Your task to perform on an android device: Open maps Image 0: 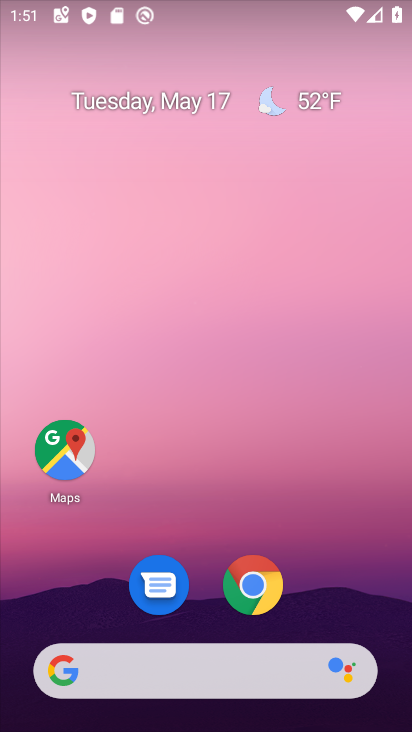
Step 0: click (63, 449)
Your task to perform on an android device: Open maps Image 1: 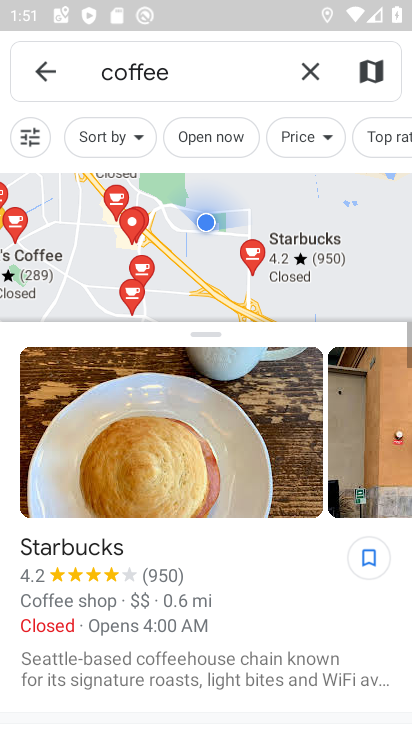
Step 1: click (305, 66)
Your task to perform on an android device: Open maps Image 2: 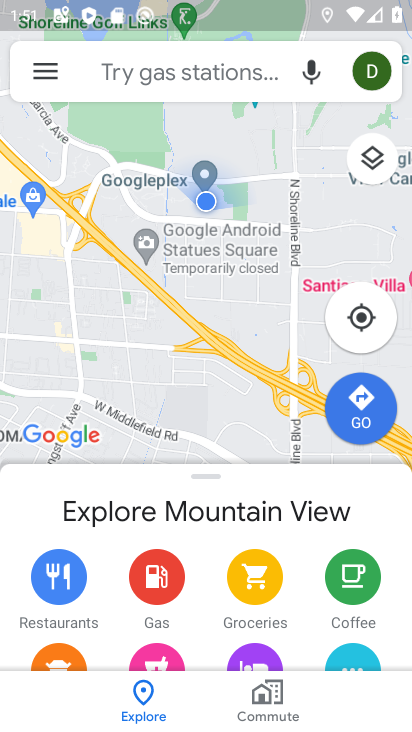
Step 2: task complete